Your task to perform on an android device: Show me recent news Image 0: 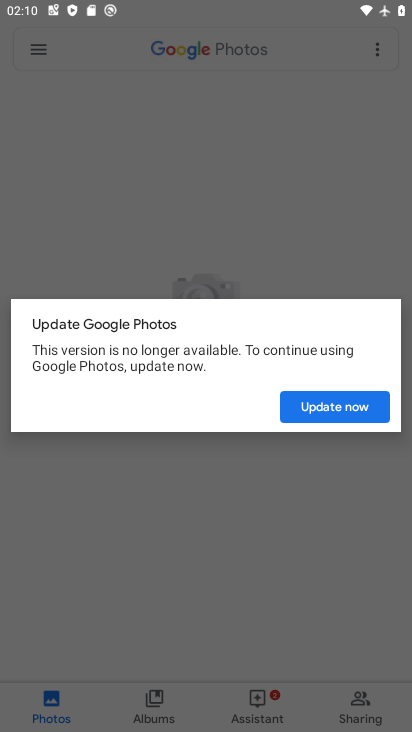
Step 0: press home button
Your task to perform on an android device: Show me recent news Image 1: 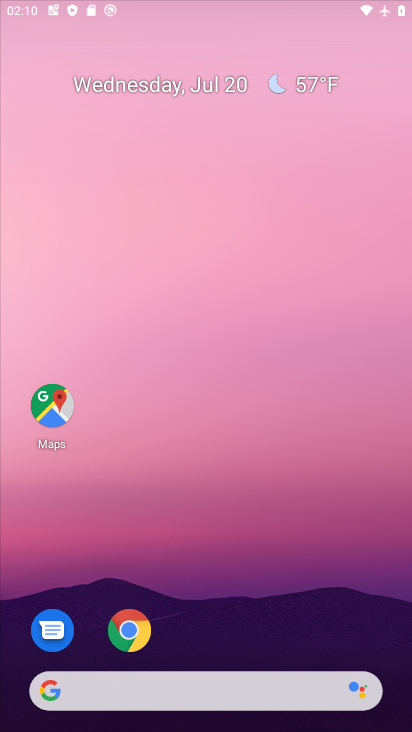
Step 1: drag from (297, 628) to (239, 91)
Your task to perform on an android device: Show me recent news Image 2: 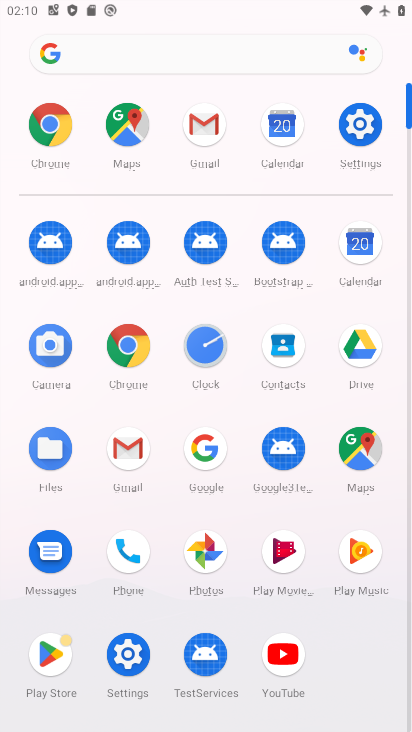
Step 2: click (125, 337)
Your task to perform on an android device: Show me recent news Image 3: 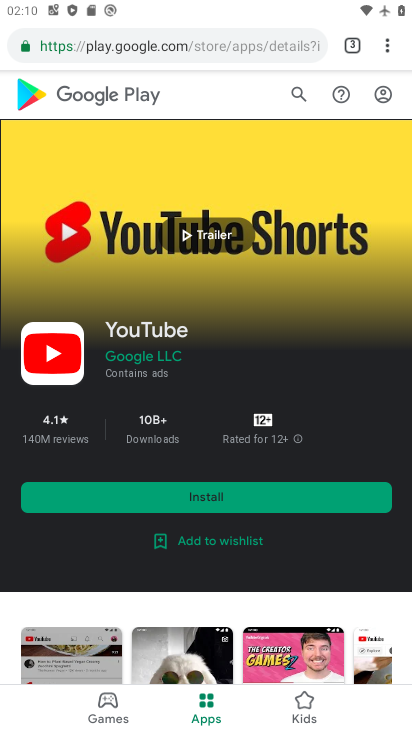
Step 3: click (239, 56)
Your task to perform on an android device: Show me recent news Image 4: 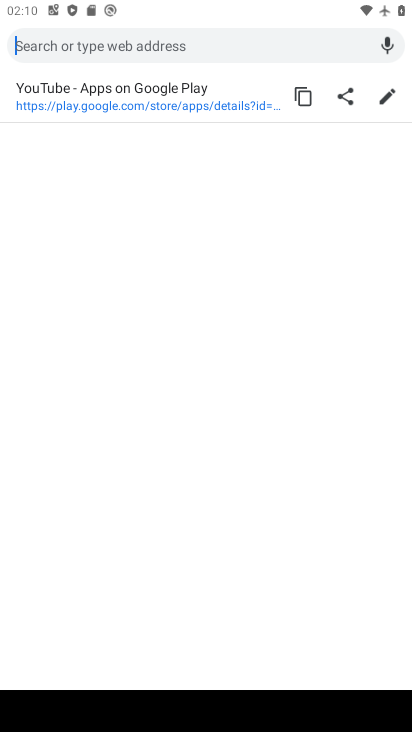
Step 4: type "news"
Your task to perform on an android device: Show me recent news Image 5: 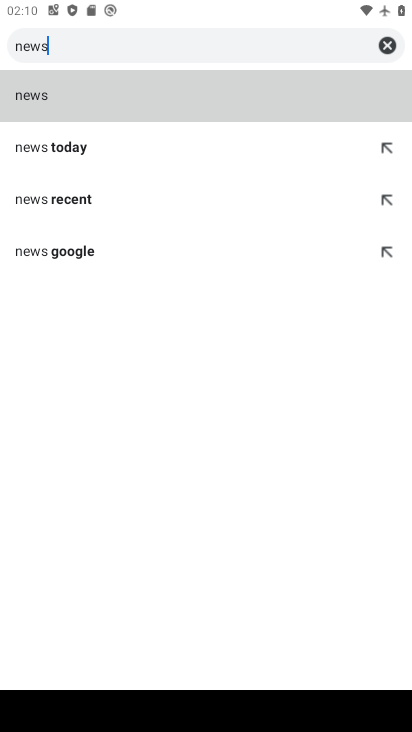
Step 5: click (47, 98)
Your task to perform on an android device: Show me recent news Image 6: 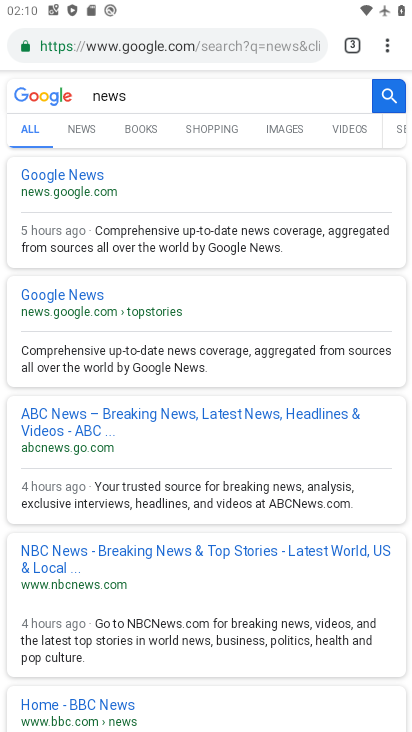
Step 6: click (72, 185)
Your task to perform on an android device: Show me recent news Image 7: 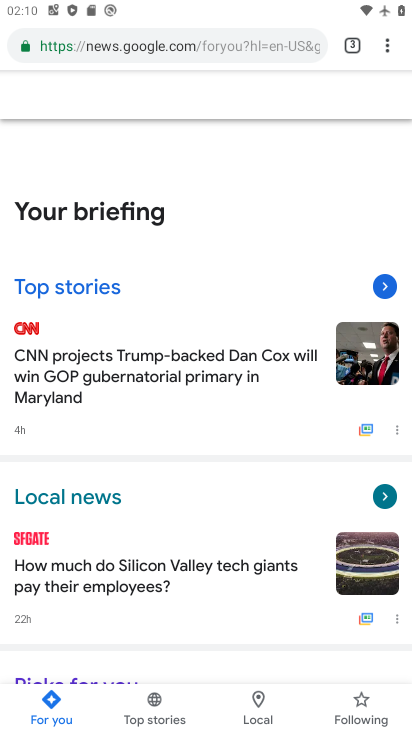
Step 7: task complete